Your task to perform on an android device: Open calendar and show me the first week of next month Image 0: 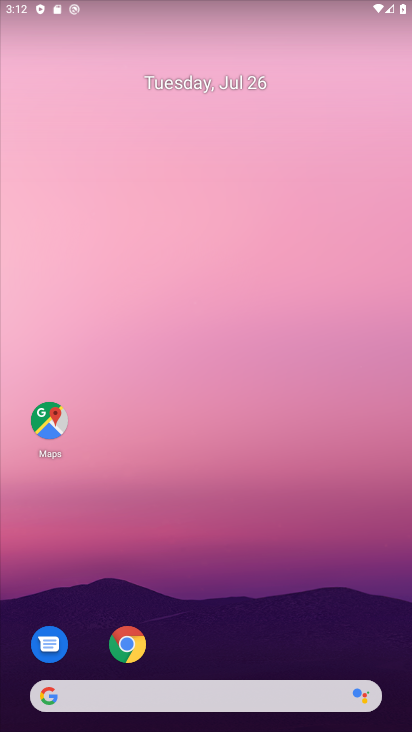
Step 0: drag from (264, 646) to (222, 87)
Your task to perform on an android device: Open calendar and show me the first week of next month Image 1: 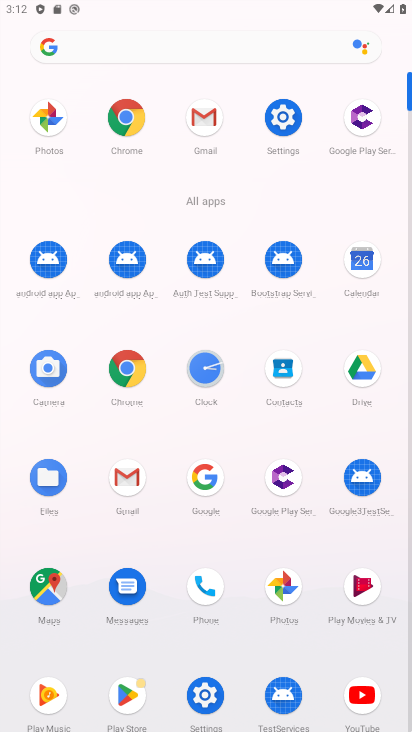
Step 1: click (372, 272)
Your task to perform on an android device: Open calendar and show me the first week of next month Image 2: 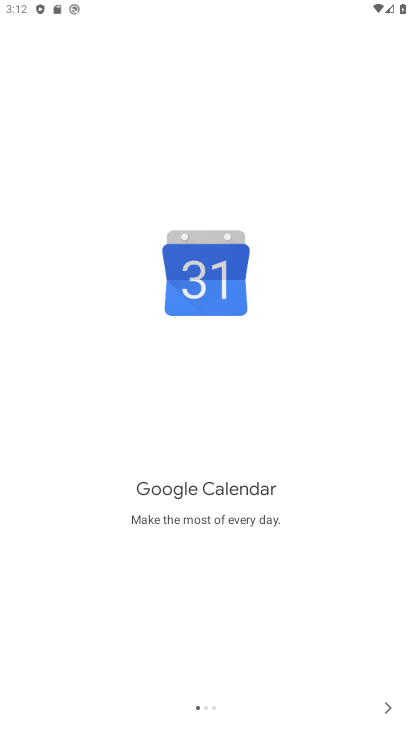
Step 2: click (389, 712)
Your task to perform on an android device: Open calendar and show me the first week of next month Image 3: 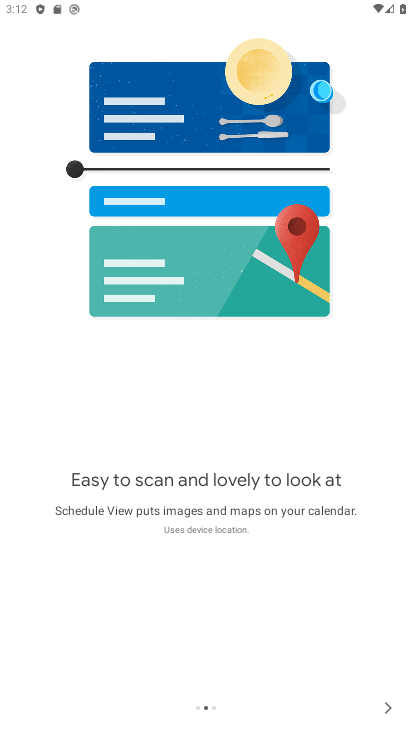
Step 3: click (389, 712)
Your task to perform on an android device: Open calendar and show me the first week of next month Image 4: 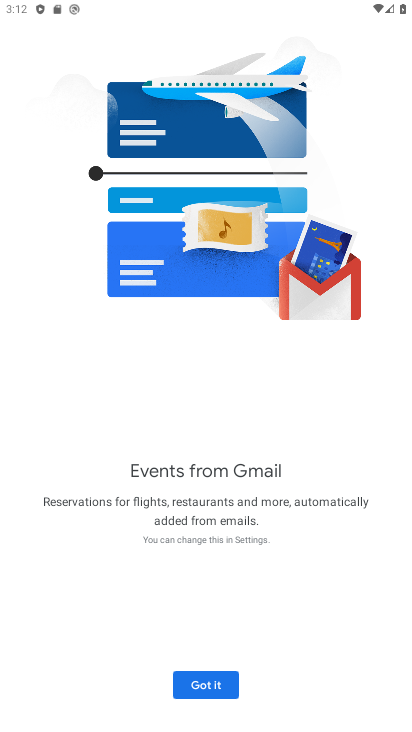
Step 4: click (208, 689)
Your task to perform on an android device: Open calendar and show me the first week of next month Image 5: 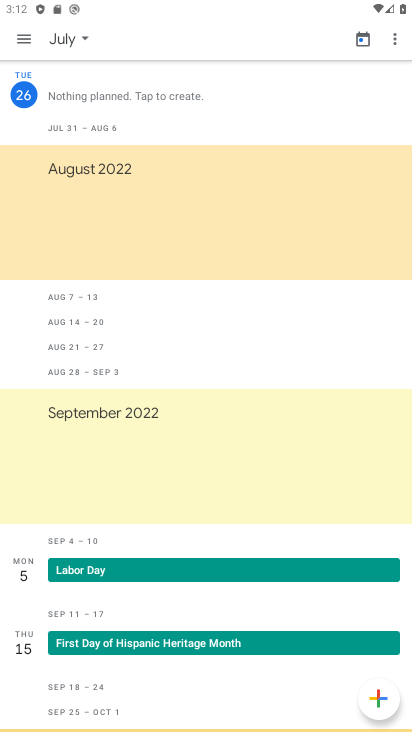
Step 5: click (12, 36)
Your task to perform on an android device: Open calendar and show me the first week of next month Image 6: 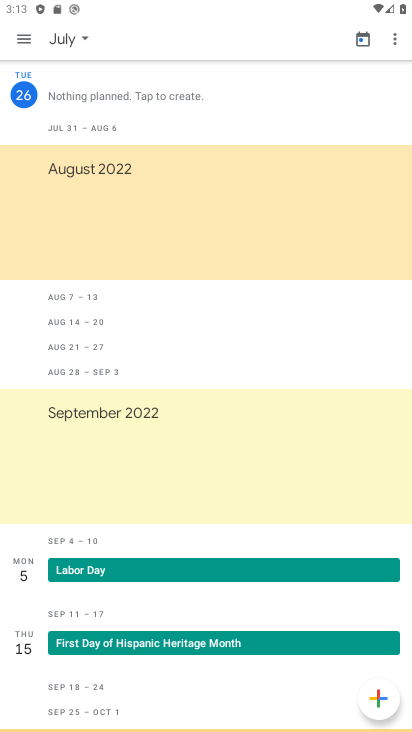
Step 6: click (21, 40)
Your task to perform on an android device: Open calendar and show me the first week of next month Image 7: 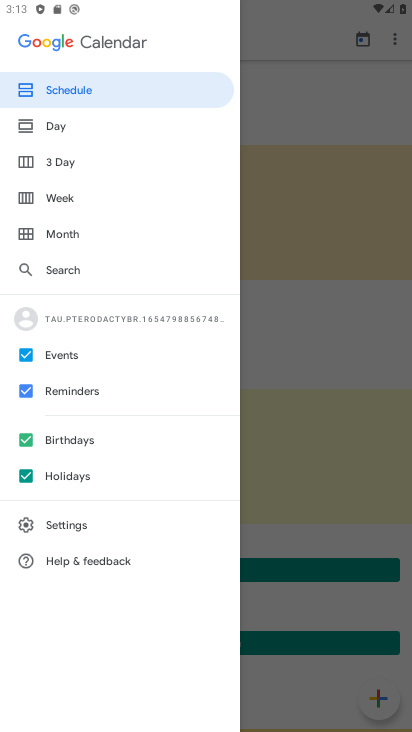
Step 7: click (61, 193)
Your task to perform on an android device: Open calendar and show me the first week of next month Image 8: 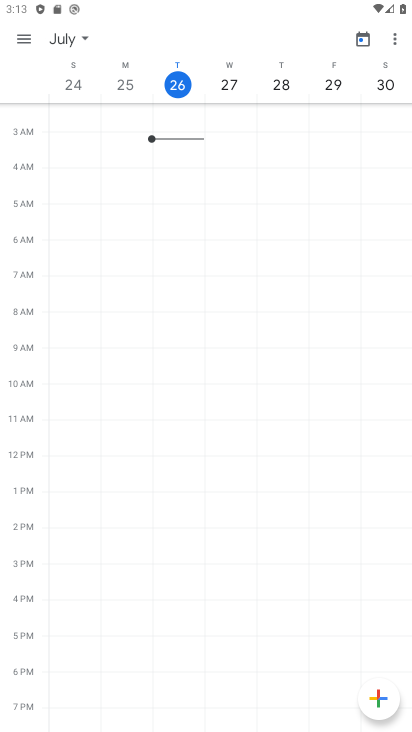
Step 8: click (71, 49)
Your task to perform on an android device: Open calendar and show me the first week of next month Image 9: 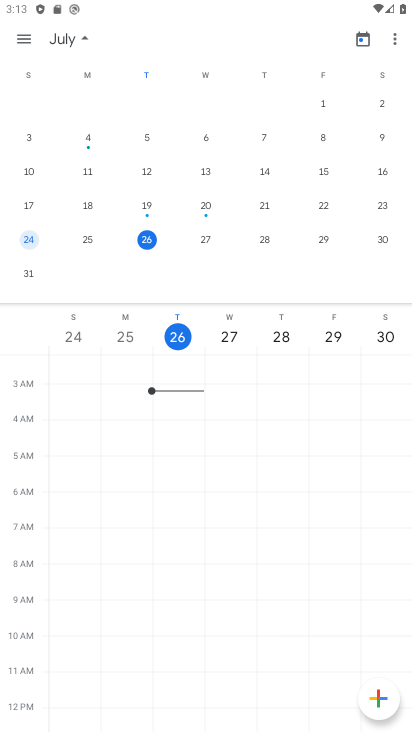
Step 9: task complete